Your task to perform on an android device: choose inbox layout in the gmail app Image 0: 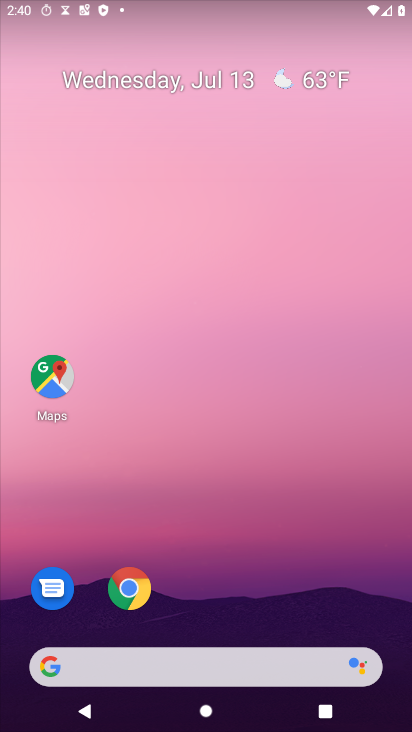
Step 0: drag from (223, 650) to (183, 210)
Your task to perform on an android device: choose inbox layout in the gmail app Image 1: 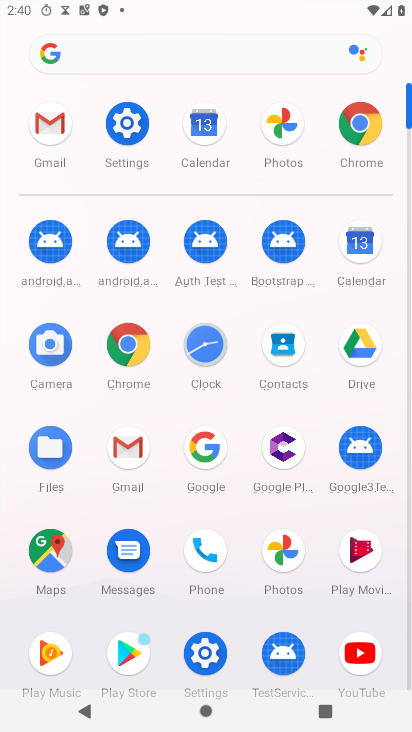
Step 1: click (126, 454)
Your task to perform on an android device: choose inbox layout in the gmail app Image 2: 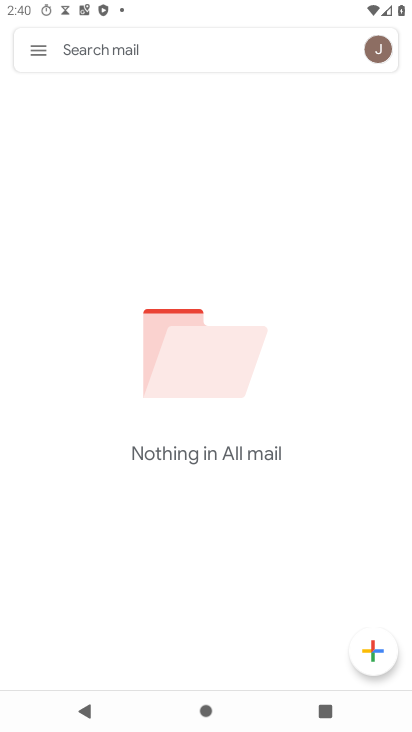
Step 2: click (36, 56)
Your task to perform on an android device: choose inbox layout in the gmail app Image 3: 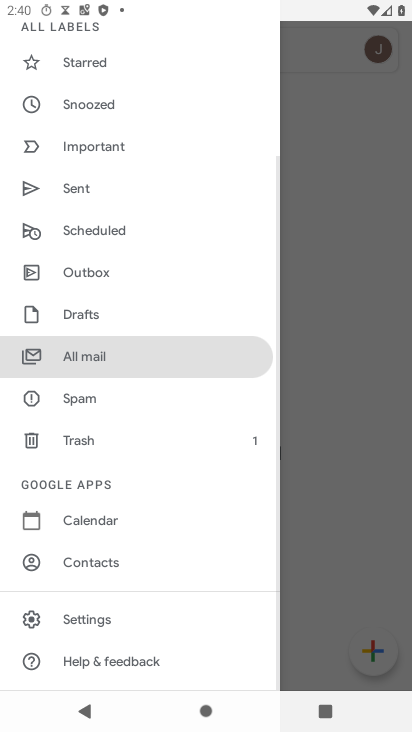
Step 3: click (96, 636)
Your task to perform on an android device: choose inbox layout in the gmail app Image 4: 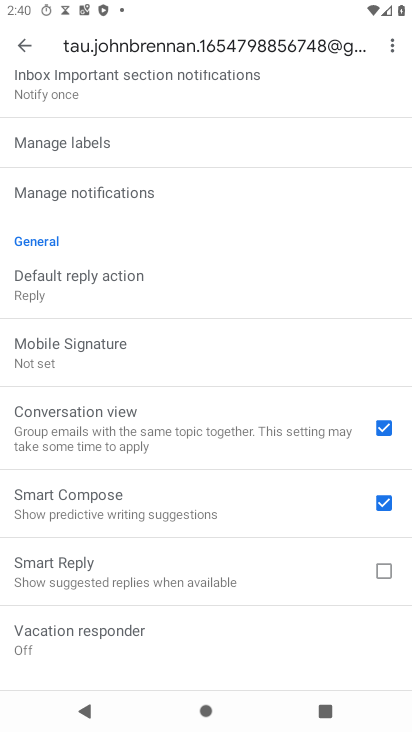
Step 4: drag from (80, 192) to (121, 589)
Your task to perform on an android device: choose inbox layout in the gmail app Image 5: 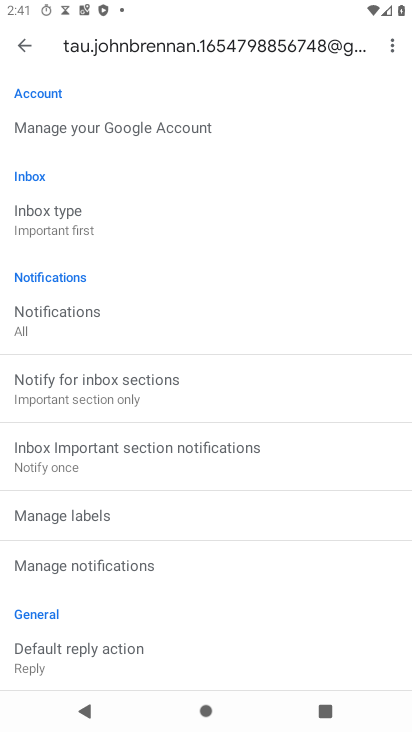
Step 5: click (63, 218)
Your task to perform on an android device: choose inbox layout in the gmail app Image 6: 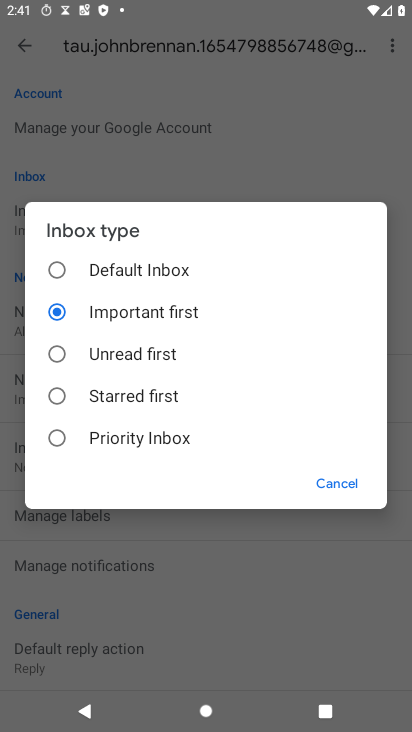
Step 6: click (116, 274)
Your task to perform on an android device: choose inbox layout in the gmail app Image 7: 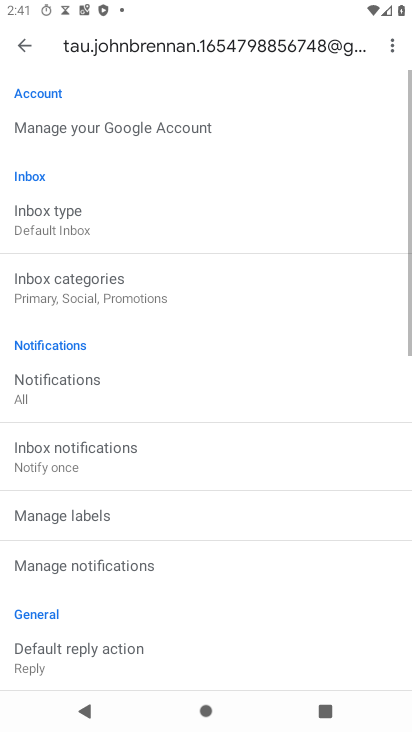
Step 7: task complete